Your task to perform on an android device: Where can I buy a nice beach umbrella? Image 0: 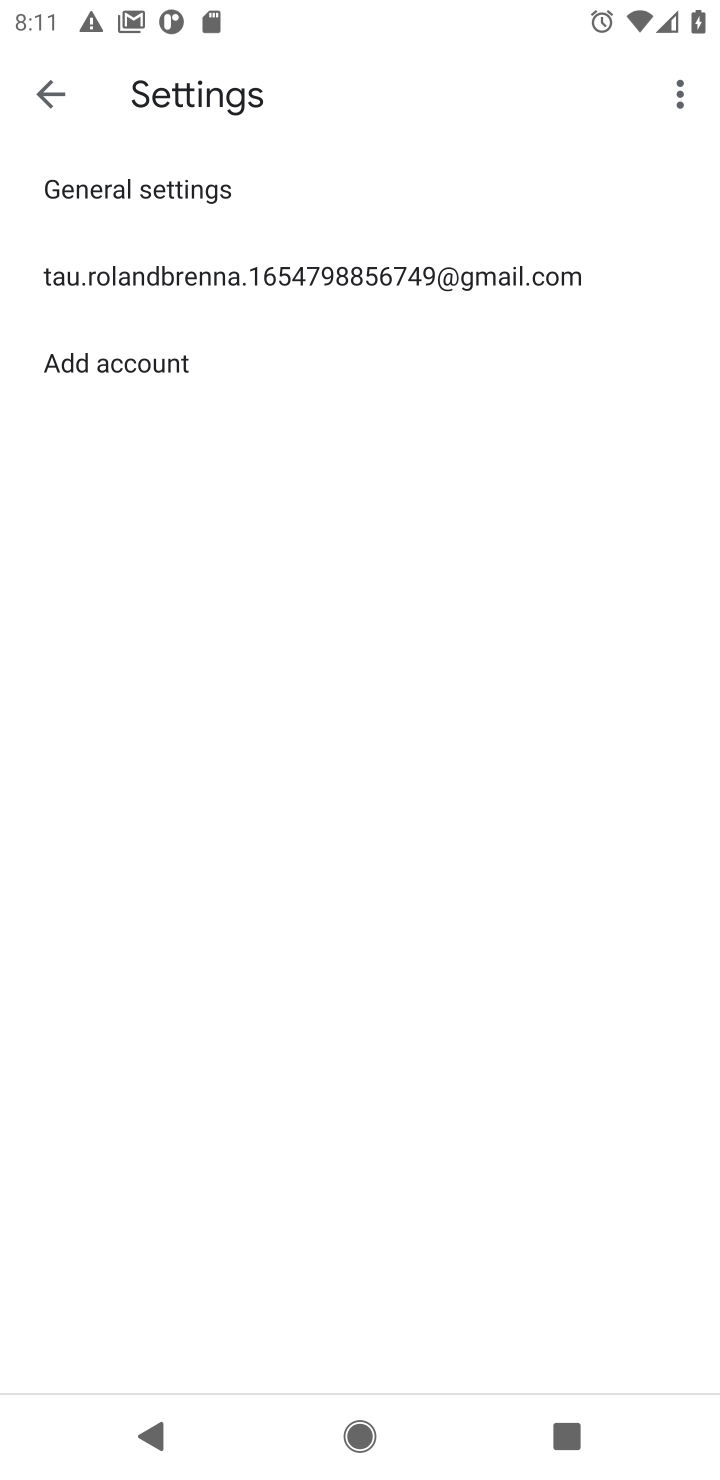
Step 0: press home button
Your task to perform on an android device: Where can I buy a nice beach umbrella? Image 1: 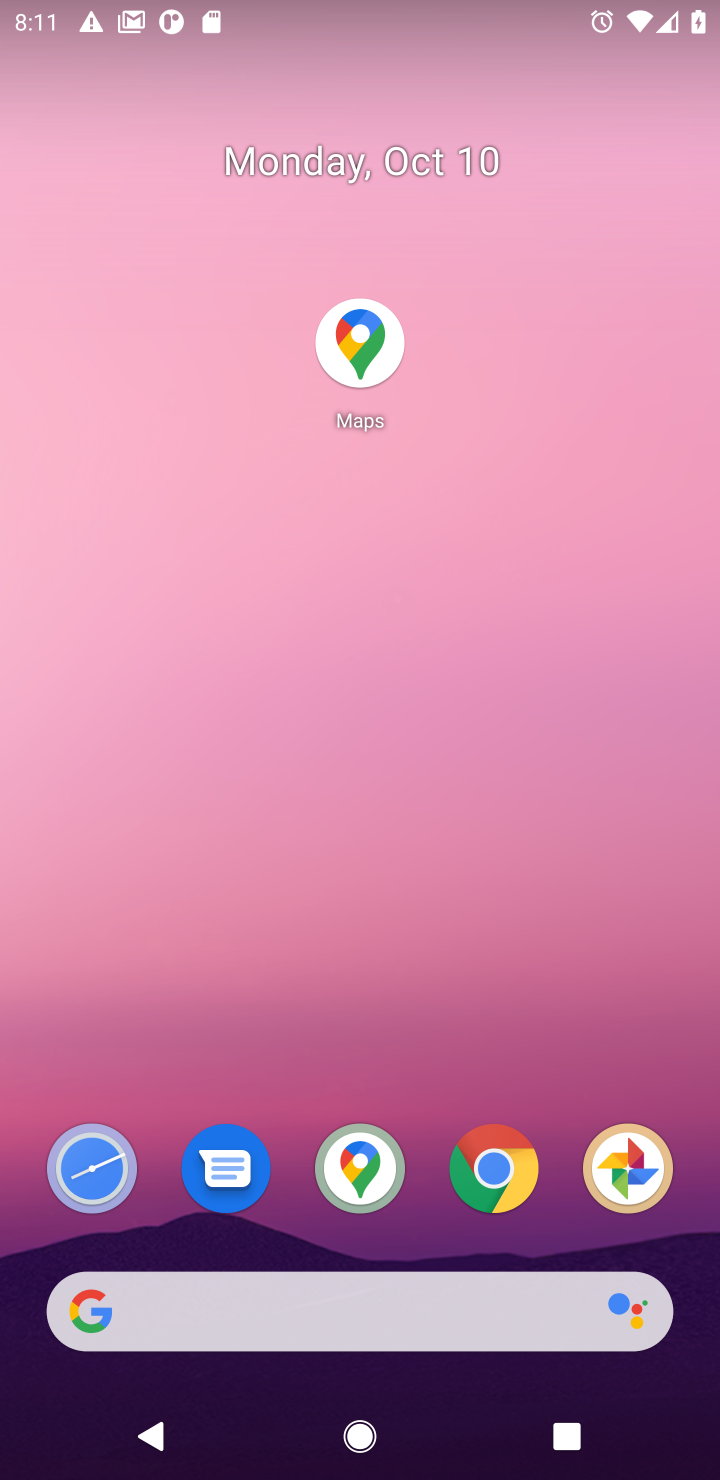
Step 1: click (500, 1168)
Your task to perform on an android device: Where can I buy a nice beach umbrella? Image 2: 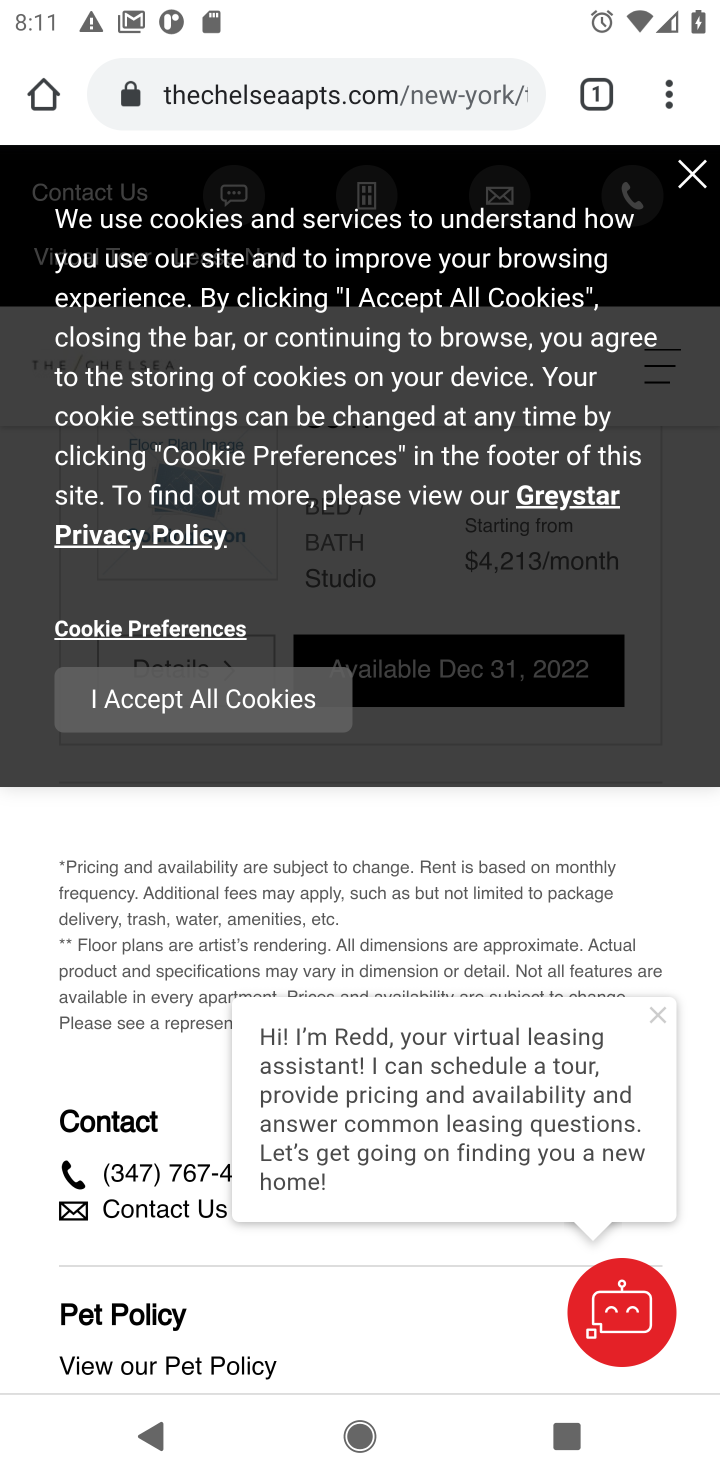
Step 2: click (266, 107)
Your task to perform on an android device: Where can I buy a nice beach umbrella? Image 3: 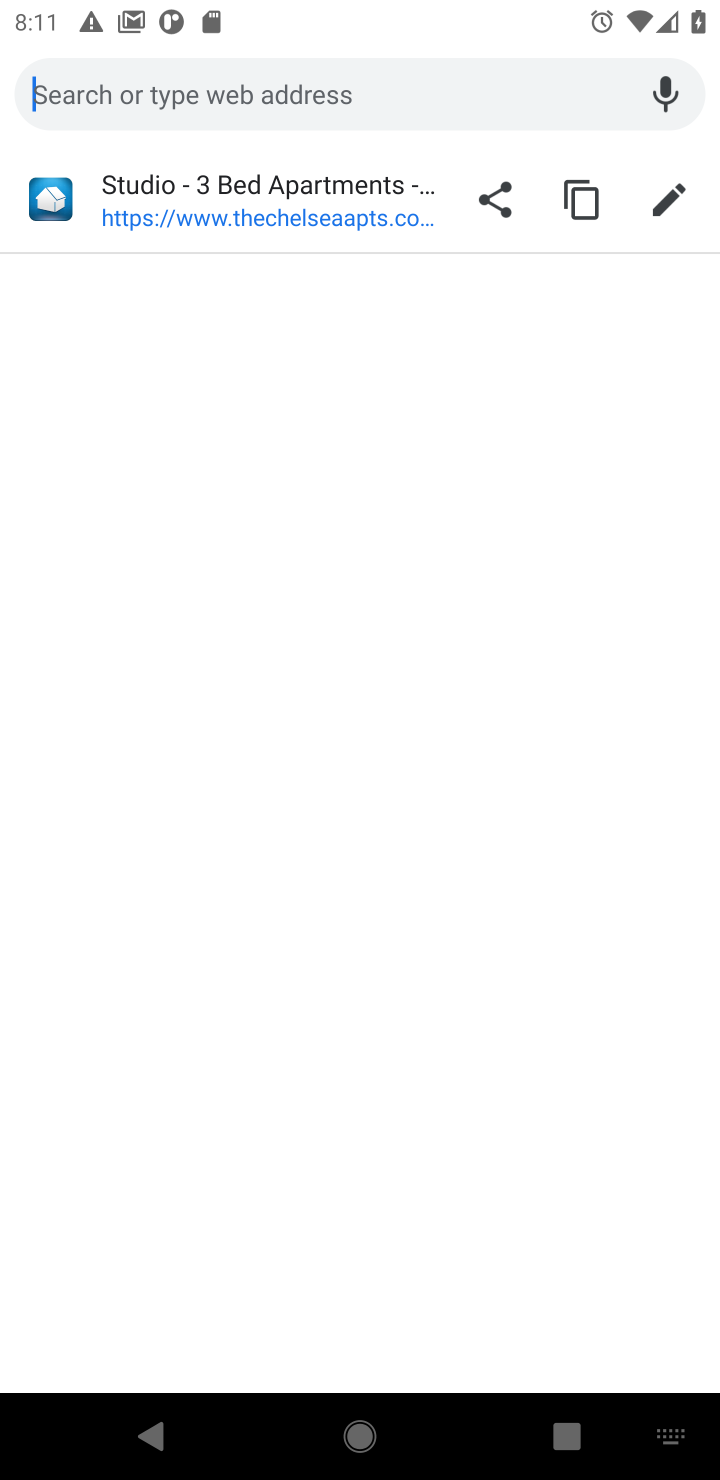
Step 3: type "beach umbrella"
Your task to perform on an android device: Where can I buy a nice beach umbrella? Image 4: 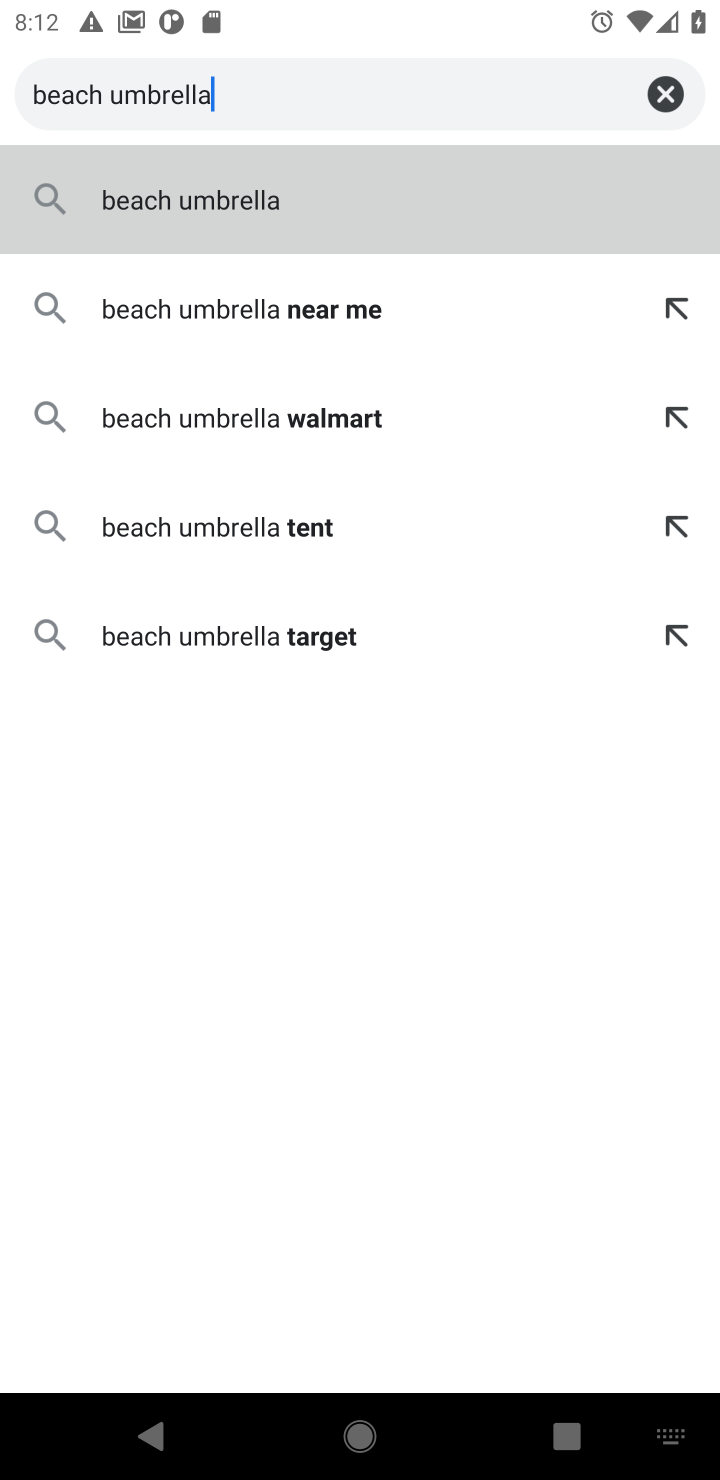
Step 4: click (278, 308)
Your task to perform on an android device: Where can I buy a nice beach umbrella? Image 5: 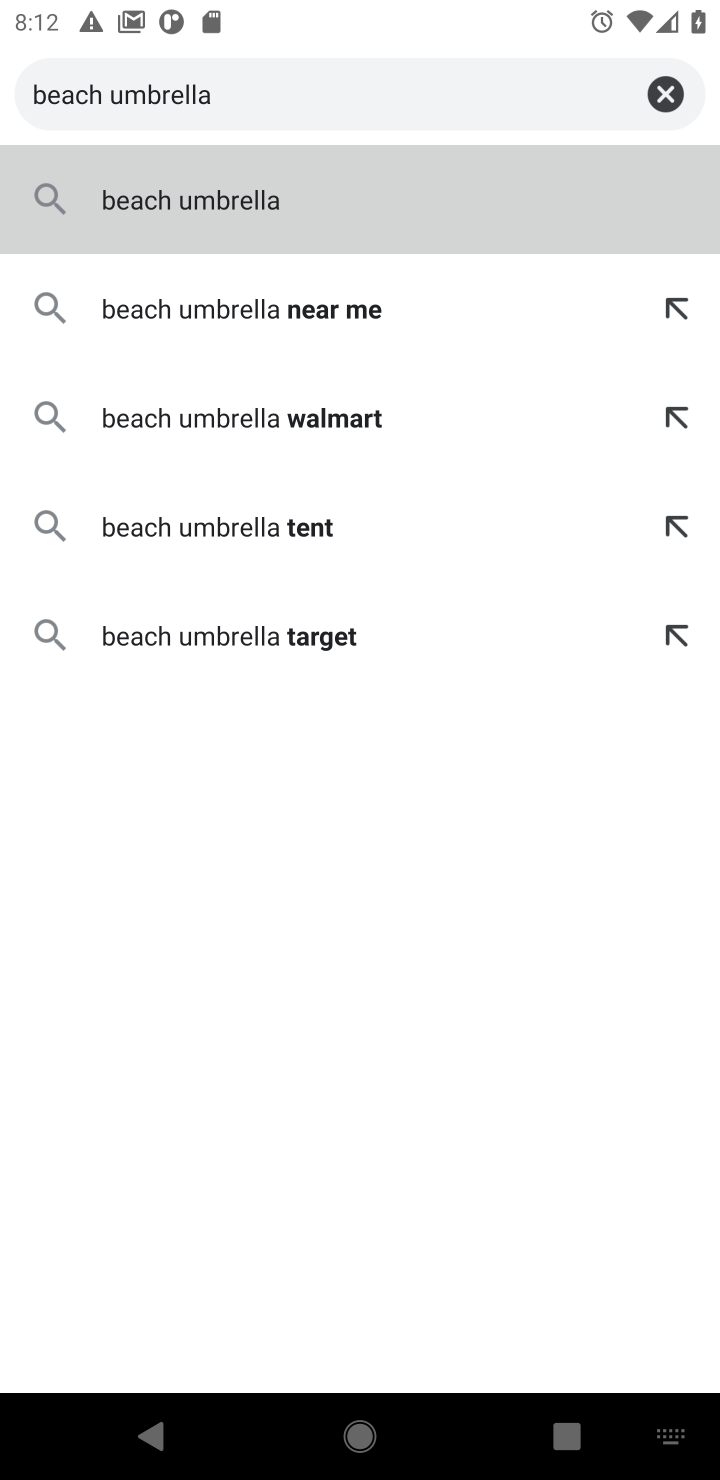
Step 5: click (152, 208)
Your task to perform on an android device: Where can I buy a nice beach umbrella? Image 6: 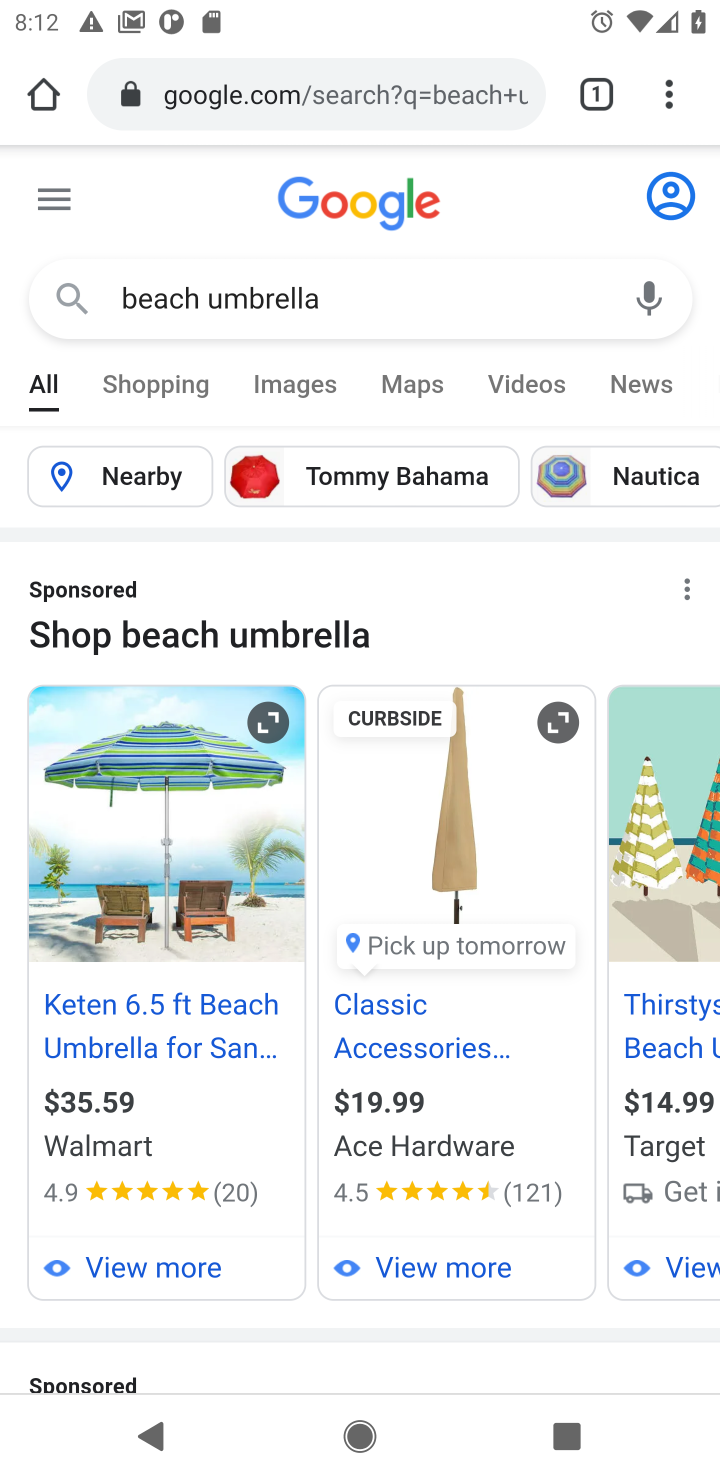
Step 6: task complete